Your task to perform on an android device: find snoozed emails in the gmail app Image 0: 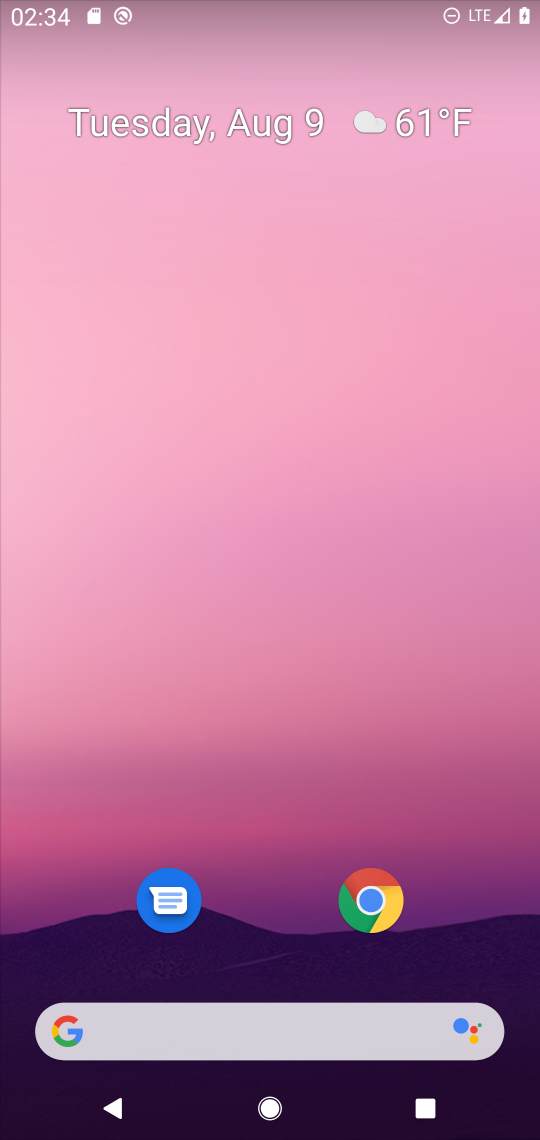
Step 0: press home button
Your task to perform on an android device: find snoozed emails in the gmail app Image 1: 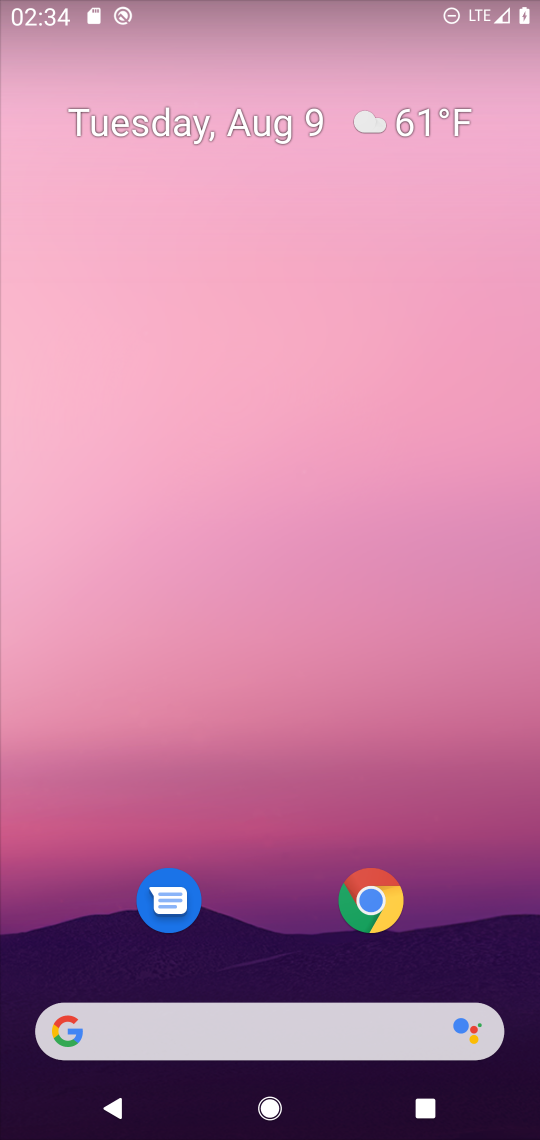
Step 1: drag from (439, 802) to (458, 187)
Your task to perform on an android device: find snoozed emails in the gmail app Image 2: 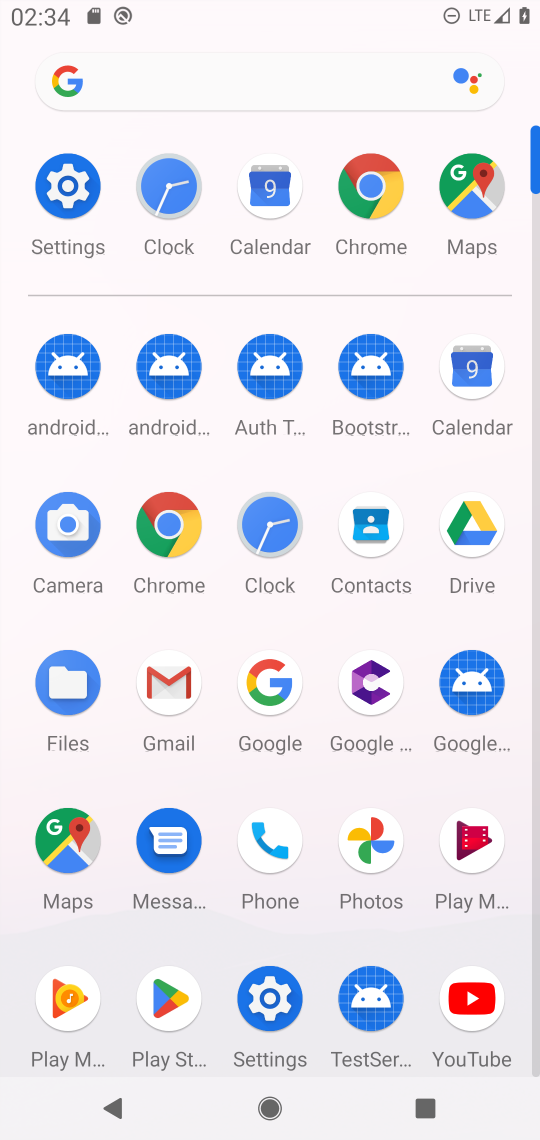
Step 2: click (174, 683)
Your task to perform on an android device: find snoozed emails in the gmail app Image 3: 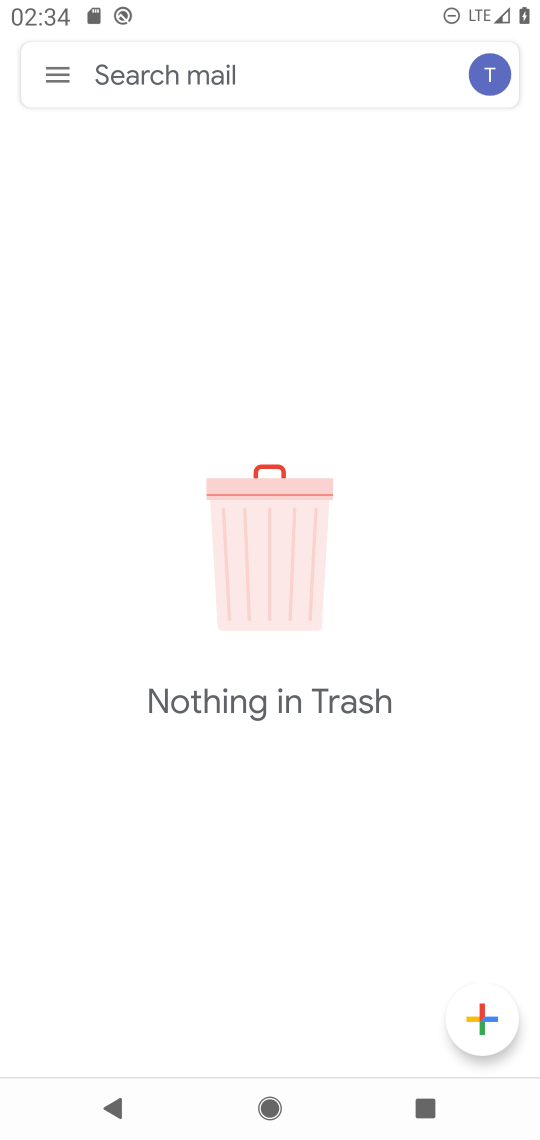
Step 3: click (59, 72)
Your task to perform on an android device: find snoozed emails in the gmail app Image 4: 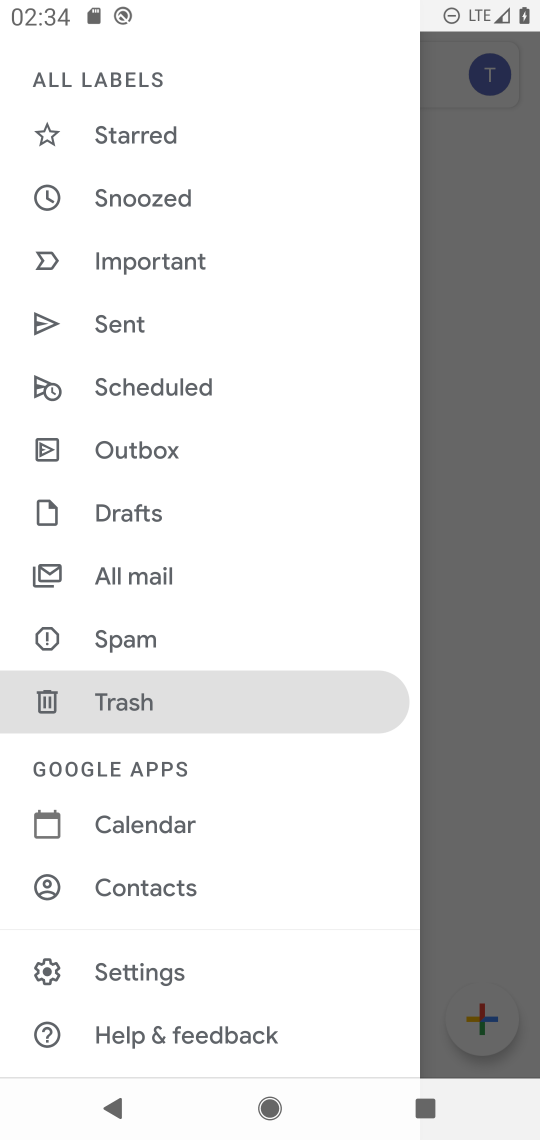
Step 4: click (129, 193)
Your task to perform on an android device: find snoozed emails in the gmail app Image 5: 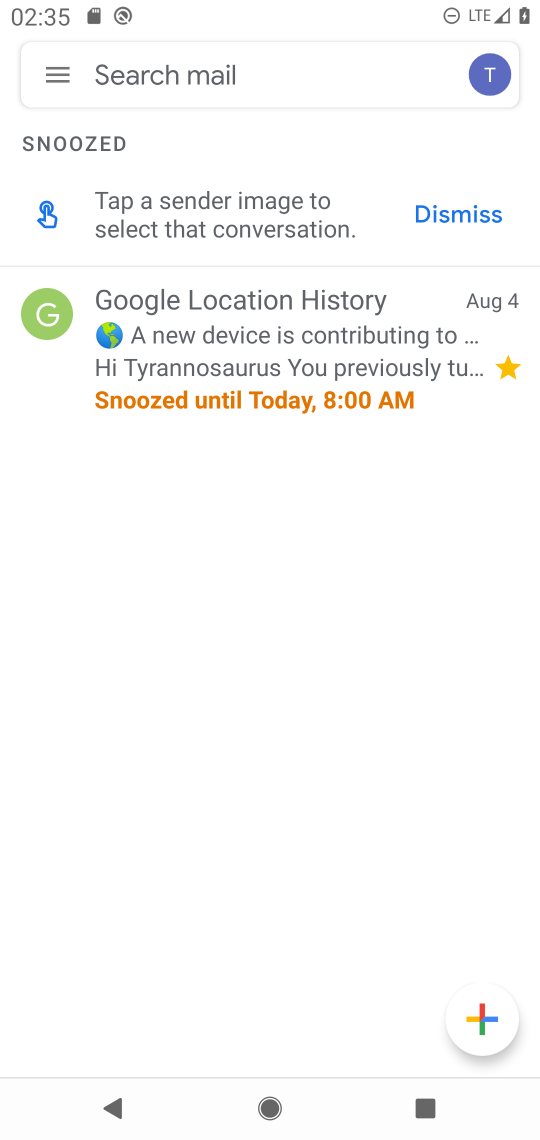
Step 5: task complete